Your task to perform on an android device: toggle pop-ups in chrome Image 0: 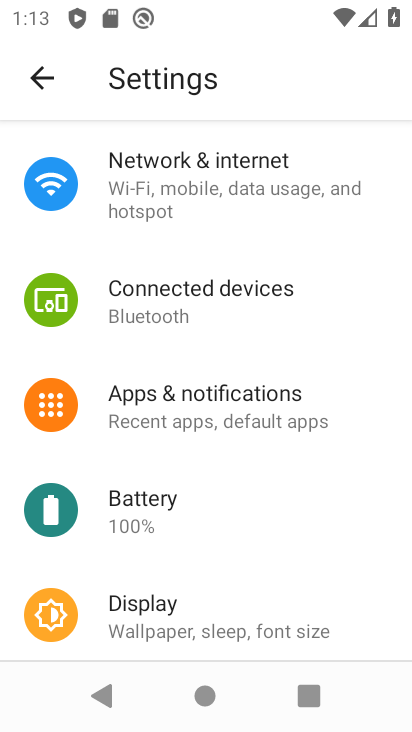
Step 0: press home button
Your task to perform on an android device: toggle pop-ups in chrome Image 1: 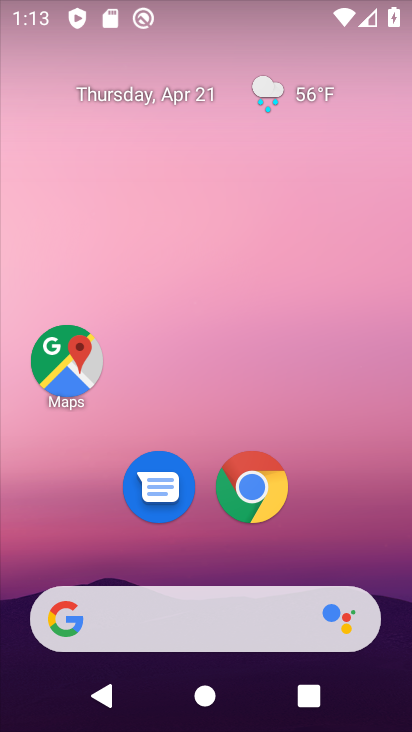
Step 1: click (256, 487)
Your task to perform on an android device: toggle pop-ups in chrome Image 2: 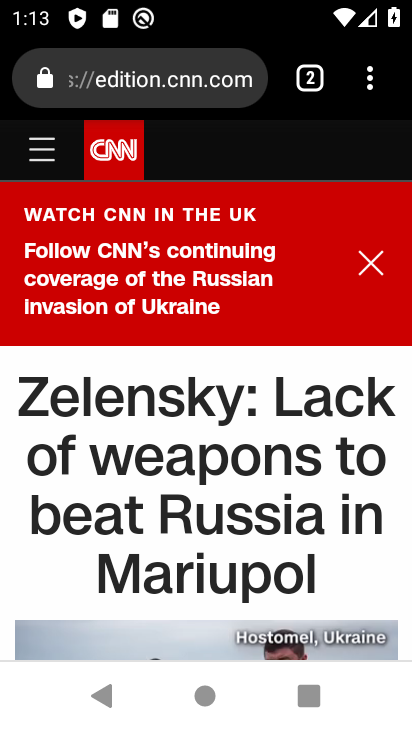
Step 2: click (374, 82)
Your task to perform on an android device: toggle pop-ups in chrome Image 3: 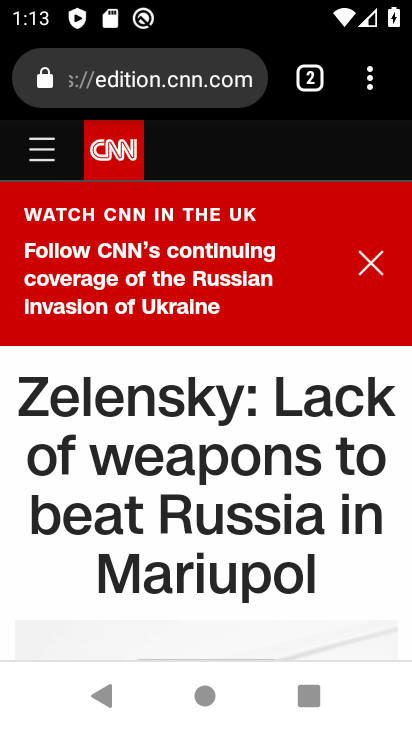
Step 3: drag from (374, 78) to (86, 548)
Your task to perform on an android device: toggle pop-ups in chrome Image 4: 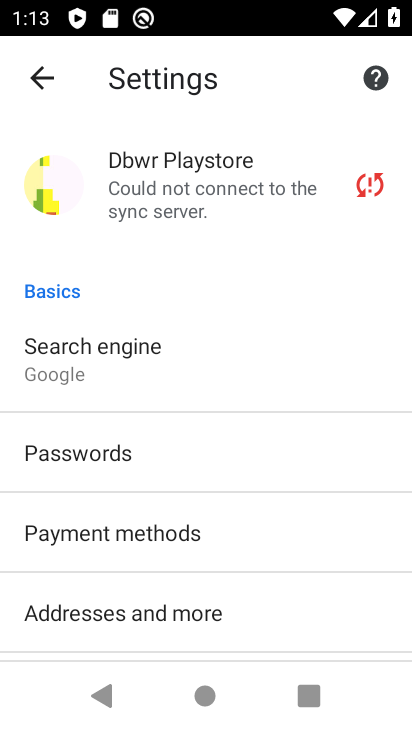
Step 4: drag from (238, 570) to (190, 206)
Your task to perform on an android device: toggle pop-ups in chrome Image 5: 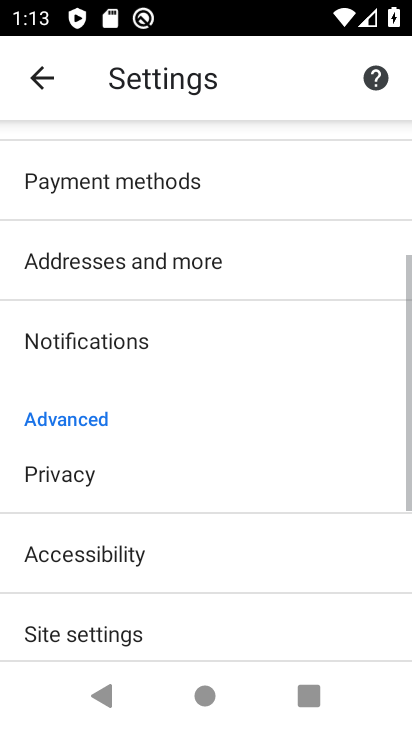
Step 5: drag from (216, 549) to (195, 189)
Your task to perform on an android device: toggle pop-ups in chrome Image 6: 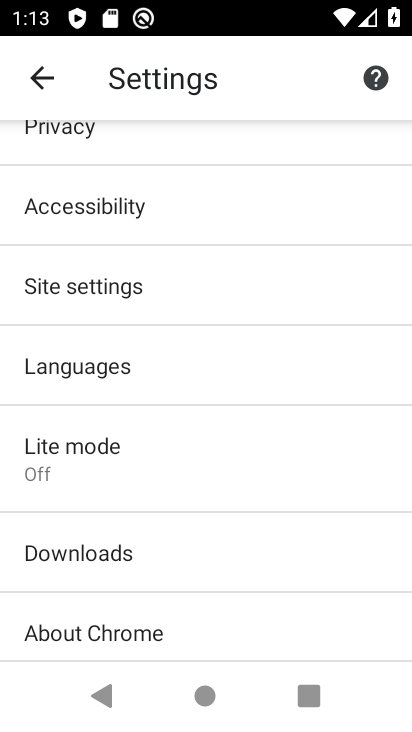
Step 6: click (86, 288)
Your task to perform on an android device: toggle pop-ups in chrome Image 7: 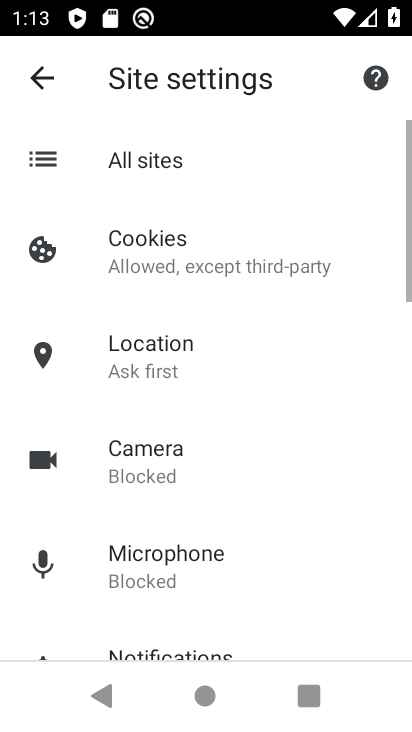
Step 7: drag from (205, 444) to (208, 261)
Your task to perform on an android device: toggle pop-ups in chrome Image 8: 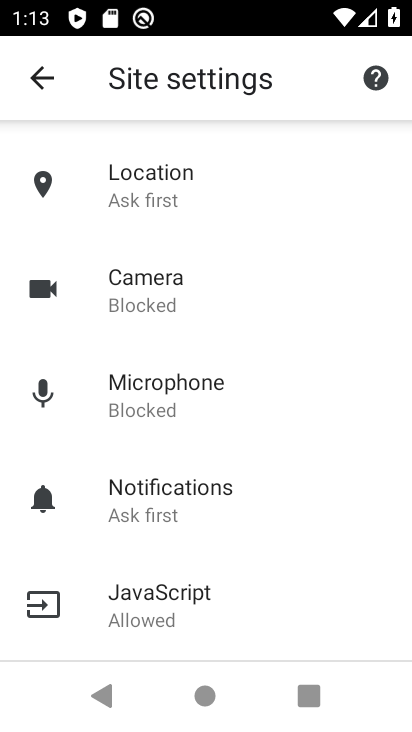
Step 8: drag from (215, 421) to (198, 312)
Your task to perform on an android device: toggle pop-ups in chrome Image 9: 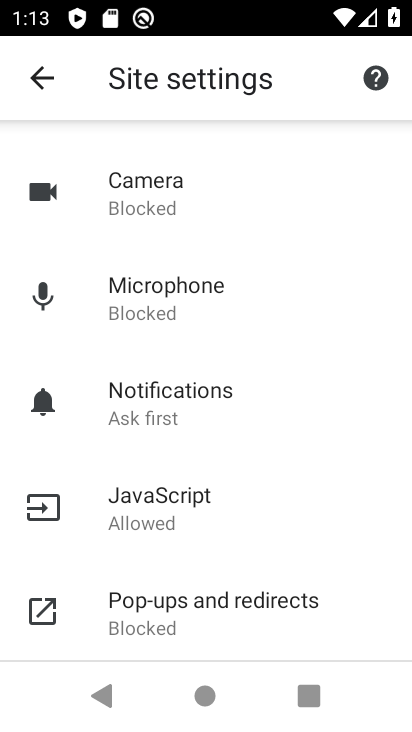
Step 9: click (142, 604)
Your task to perform on an android device: toggle pop-ups in chrome Image 10: 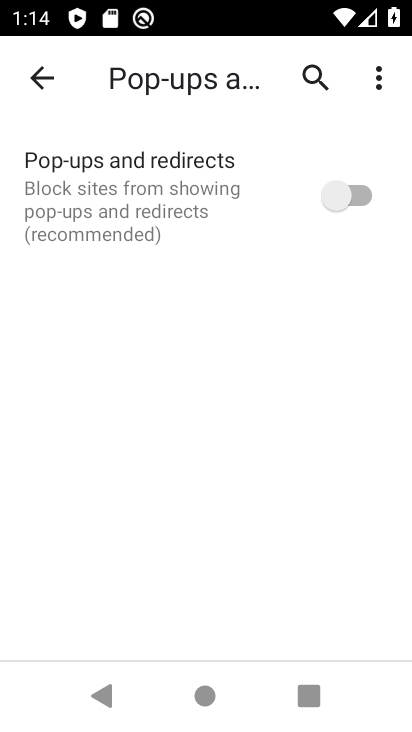
Step 10: click (345, 196)
Your task to perform on an android device: toggle pop-ups in chrome Image 11: 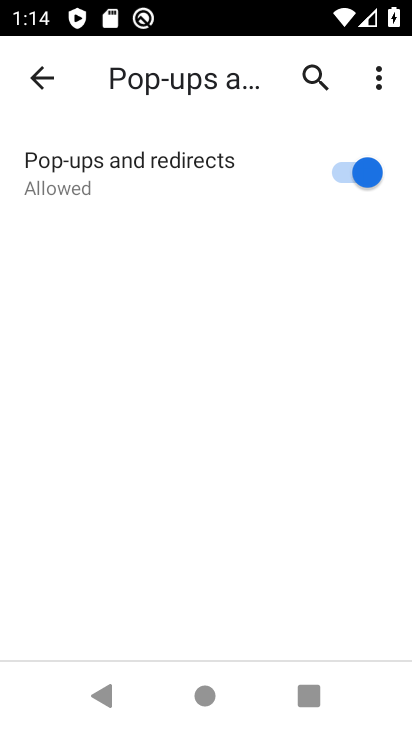
Step 11: task complete